Your task to perform on an android device: Is it going to rain tomorrow? Image 0: 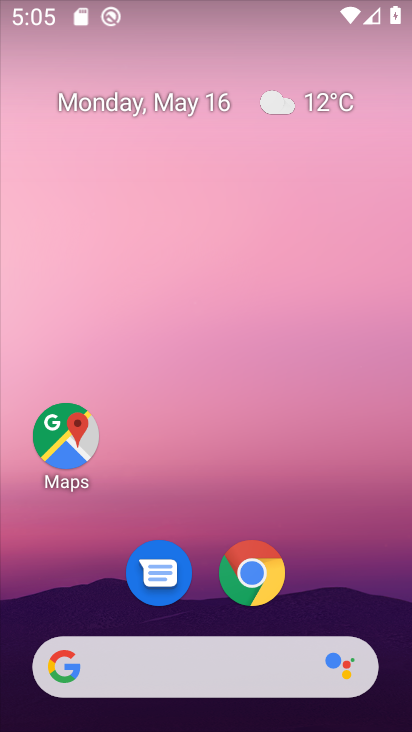
Step 0: click (267, 205)
Your task to perform on an android device: Is it going to rain tomorrow? Image 1: 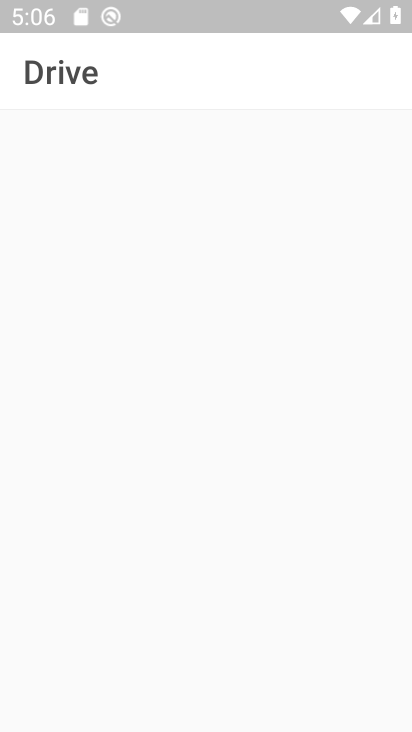
Step 1: press back button
Your task to perform on an android device: Is it going to rain tomorrow? Image 2: 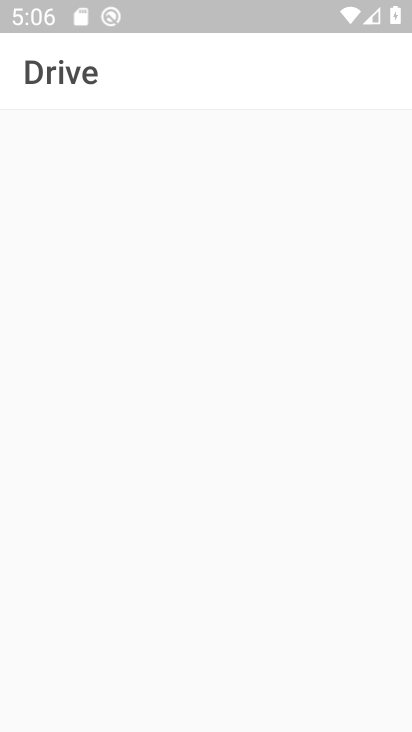
Step 2: click (149, 413)
Your task to perform on an android device: Is it going to rain tomorrow? Image 3: 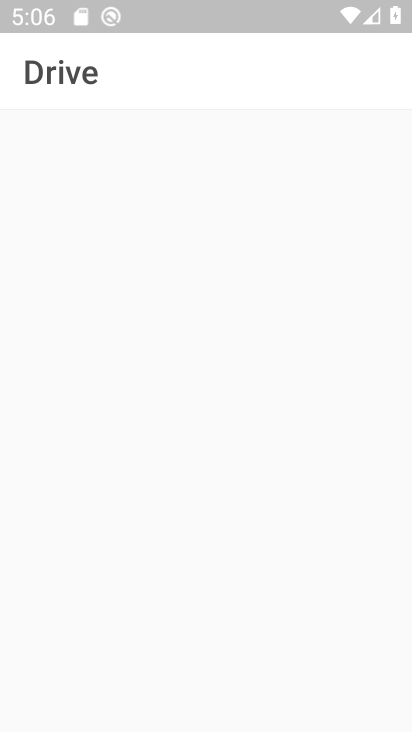
Step 3: press home button
Your task to perform on an android device: Is it going to rain tomorrow? Image 4: 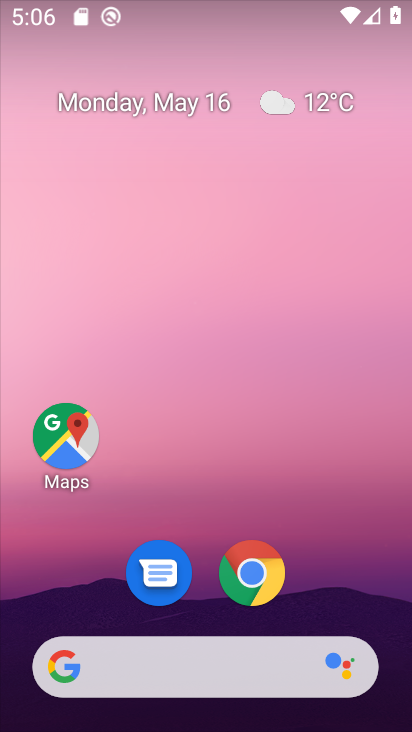
Step 4: click (275, 102)
Your task to perform on an android device: Is it going to rain tomorrow? Image 5: 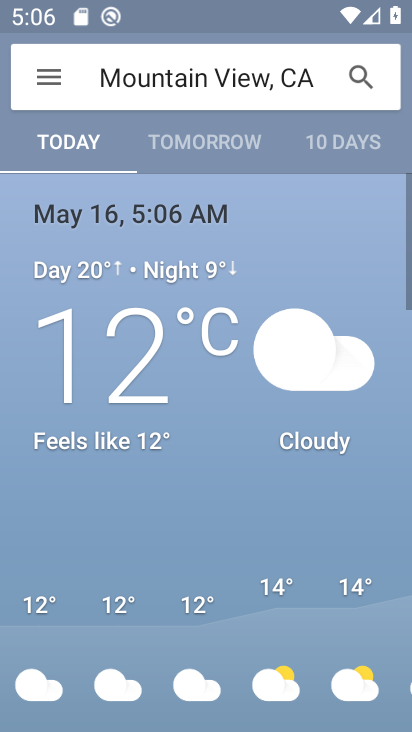
Step 5: click (202, 148)
Your task to perform on an android device: Is it going to rain tomorrow? Image 6: 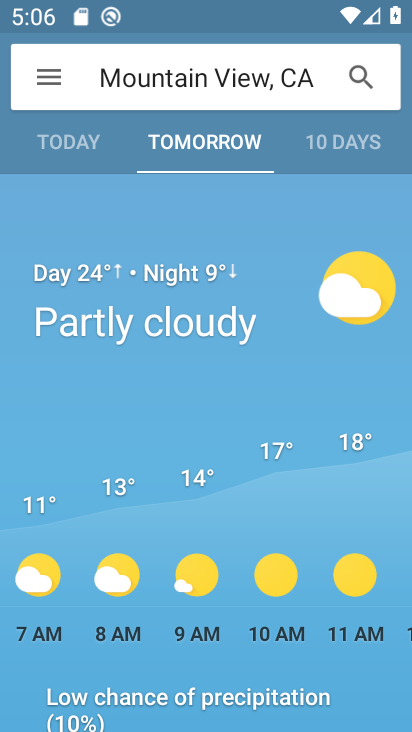
Step 6: task complete